Your task to perform on an android device: When is my next appointment? Image 0: 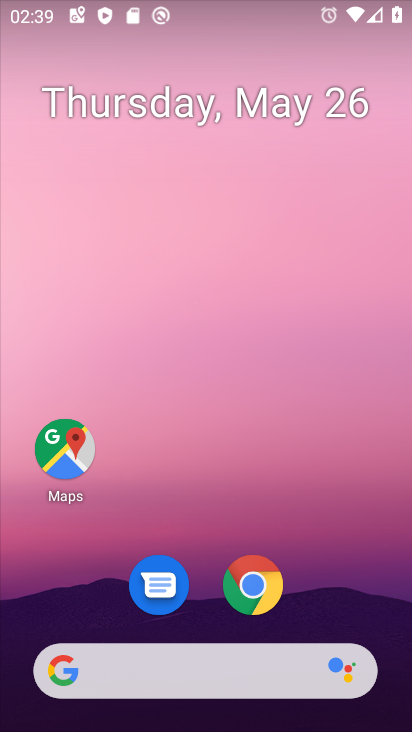
Step 0: drag from (213, 476) to (203, 38)
Your task to perform on an android device: When is my next appointment? Image 1: 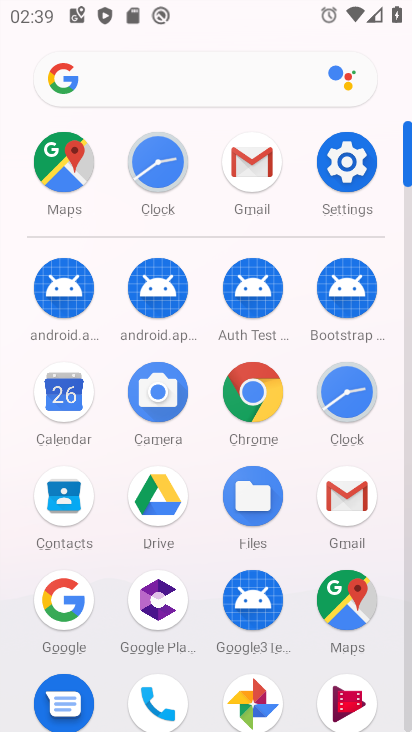
Step 1: click (73, 387)
Your task to perform on an android device: When is my next appointment? Image 2: 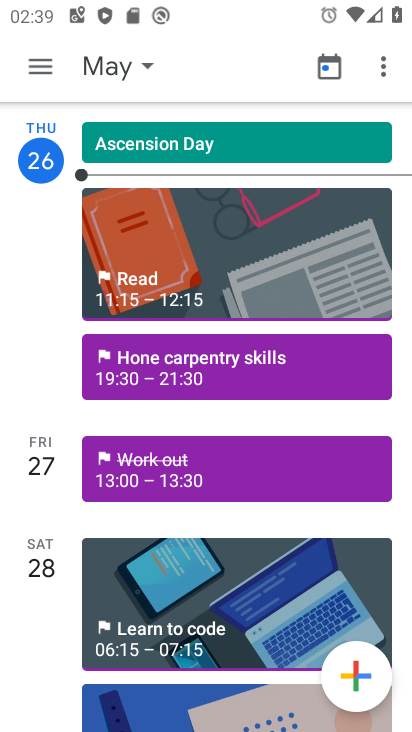
Step 2: task complete